Your task to perform on an android device: Search for seafood restaurants on Google Maps Image 0: 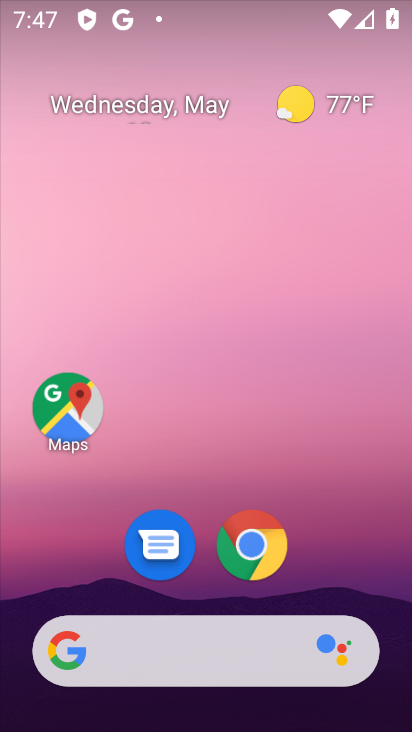
Step 0: click (67, 409)
Your task to perform on an android device: Search for seafood restaurants on Google Maps Image 1: 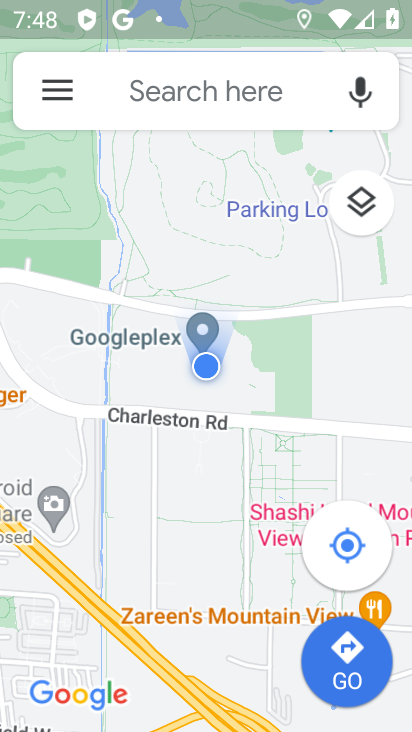
Step 1: click (154, 78)
Your task to perform on an android device: Search for seafood restaurants on Google Maps Image 2: 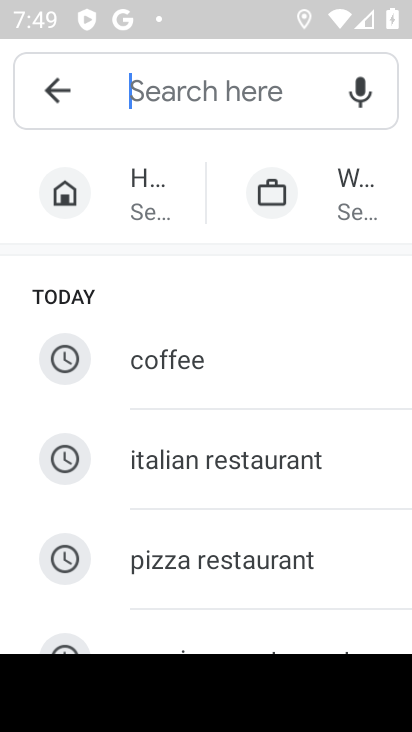
Step 2: type "seafood restaurants"
Your task to perform on an android device: Search for seafood restaurants on Google Maps Image 3: 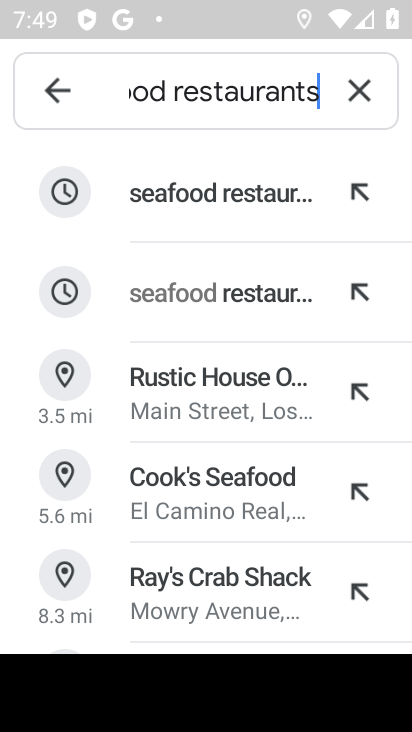
Step 3: click (184, 202)
Your task to perform on an android device: Search for seafood restaurants on Google Maps Image 4: 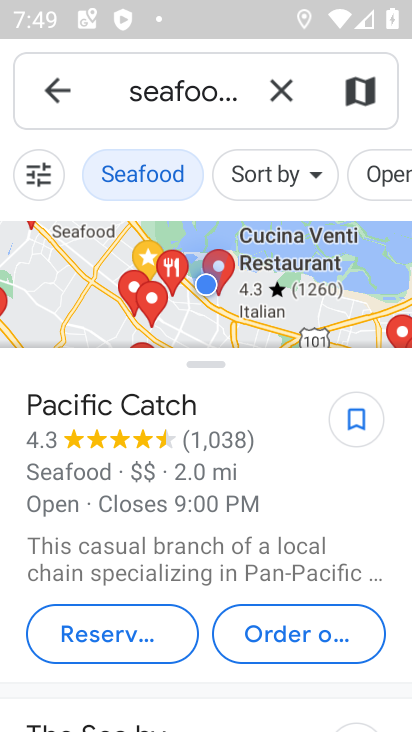
Step 4: task complete